Your task to perform on an android device: set the timer Image 0: 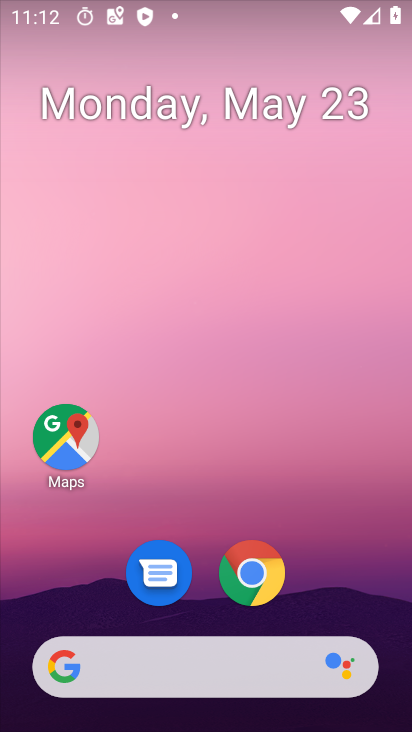
Step 0: drag from (338, 592) to (297, 14)
Your task to perform on an android device: set the timer Image 1: 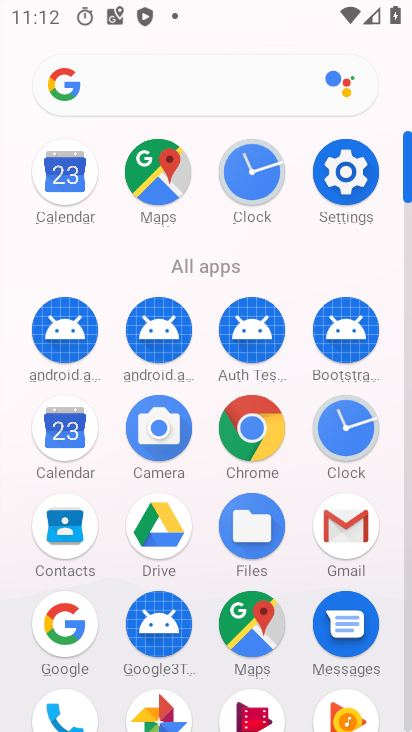
Step 1: click (250, 171)
Your task to perform on an android device: set the timer Image 2: 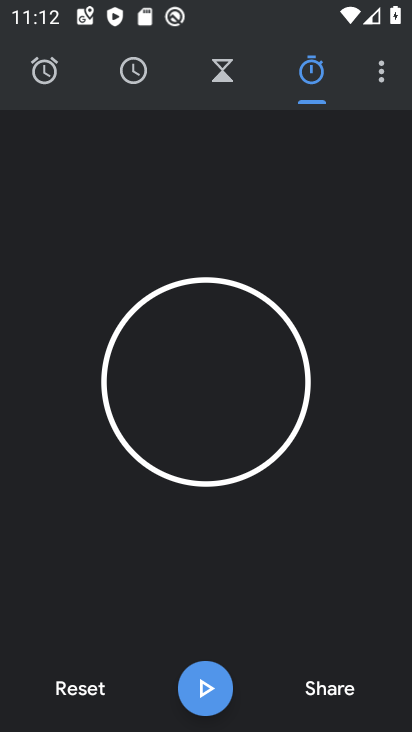
Step 2: click (226, 80)
Your task to perform on an android device: set the timer Image 3: 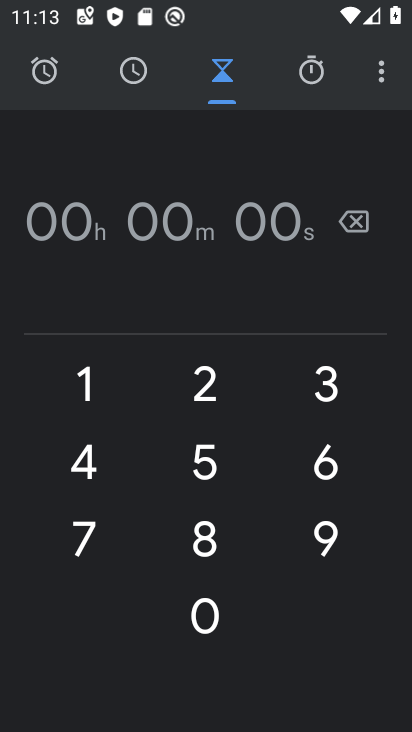
Step 3: type "1234"
Your task to perform on an android device: set the timer Image 4: 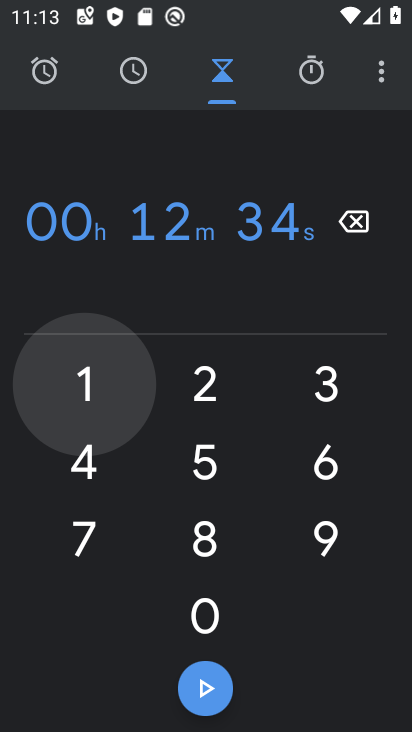
Step 4: click (207, 682)
Your task to perform on an android device: set the timer Image 5: 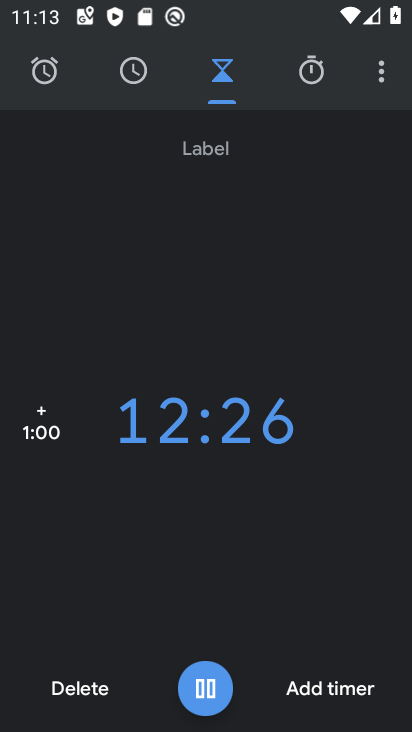
Step 5: click (207, 682)
Your task to perform on an android device: set the timer Image 6: 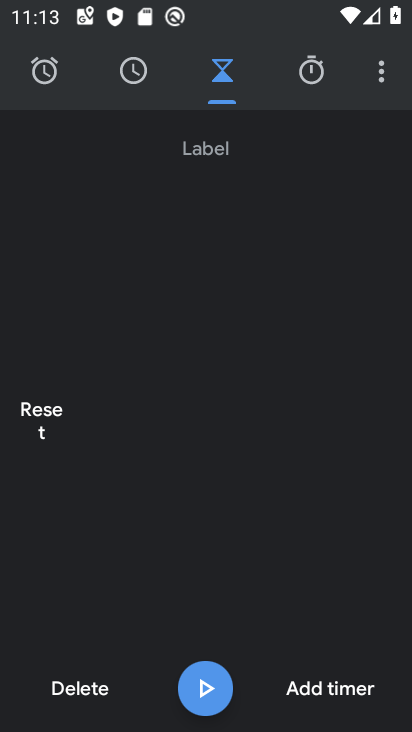
Step 6: task complete